Your task to perform on an android device: Open sound settings Image 0: 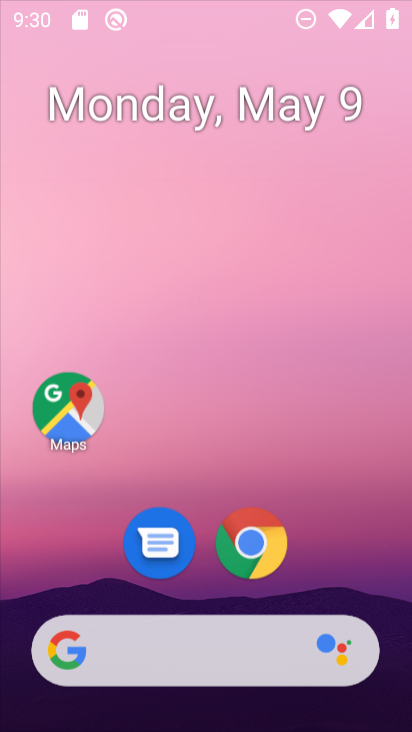
Step 0: press home button
Your task to perform on an android device: Open sound settings Image 1: 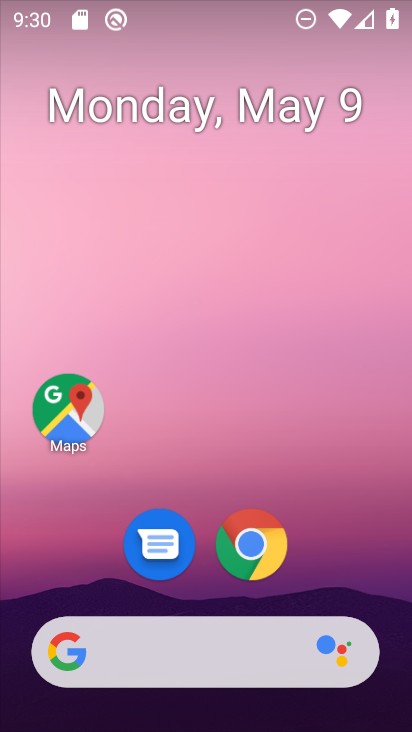
Step 1: drag from (314, 532) to (307, 3)
Your task to perform on an android device: Open sound settings Image 2: 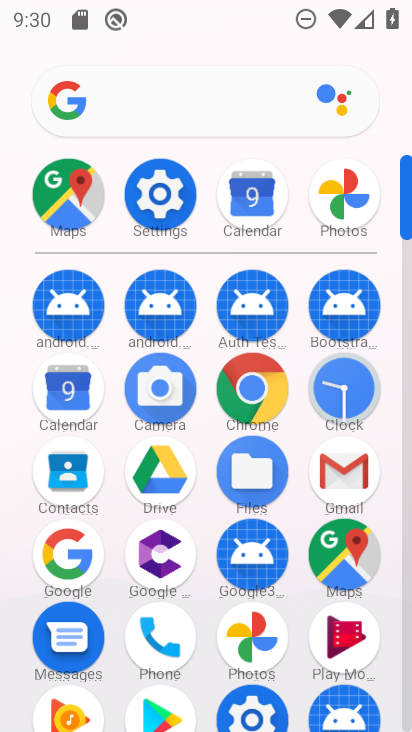
Step 2: click (158, 192)
Your task to perform on an android device: Open sound settings Image 3: 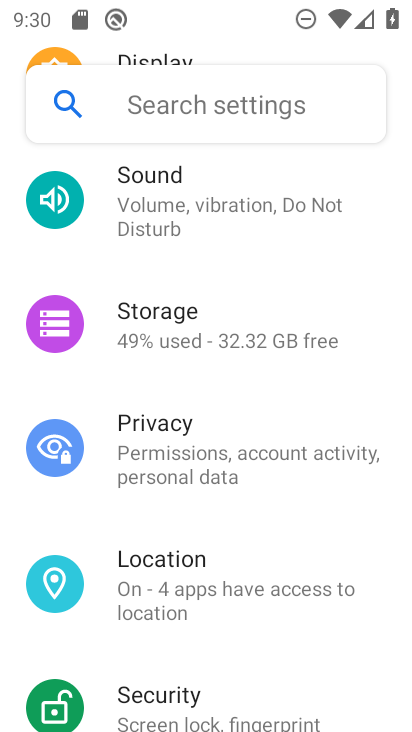
Step 3: drag from (231, 525) to (208, 656)
Your task to perform on an android device: Open sound settings Image 4: 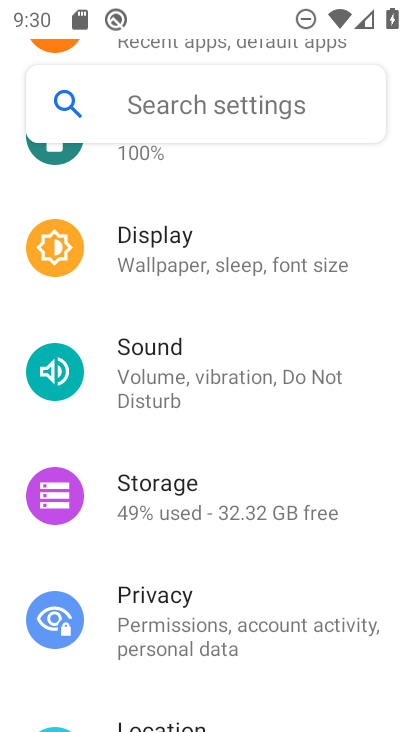
Step 4: click (160, 354)
Your task to perform on an android device: Open sound settings Image 5: 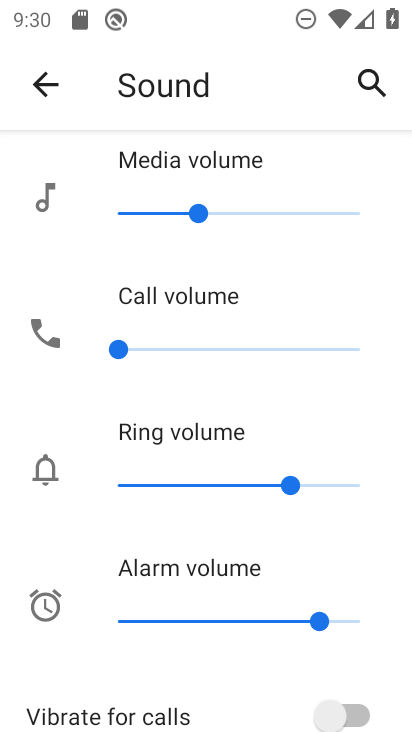
Step 5: task complete